Your task to perform on an android device: What's the weather going to be this weekend? Image 0: 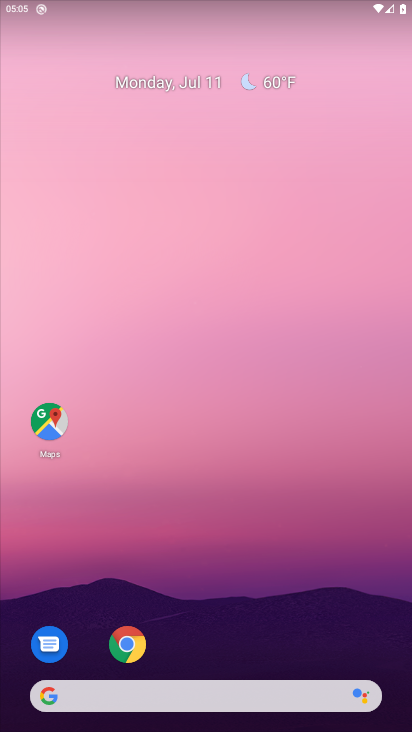
Step 0: drag from (260, 673) to (260, 421)
Your task to perform on an android device: What's the weather going to be this weekend? Image 1: 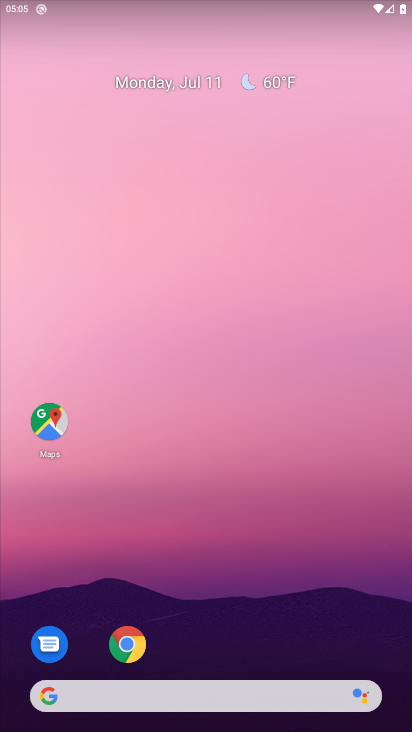
Step 1: drag from (220, 620) to (157, 143)
Your task to perform on an android device: What's the weather going to be this weekend? Image 2: 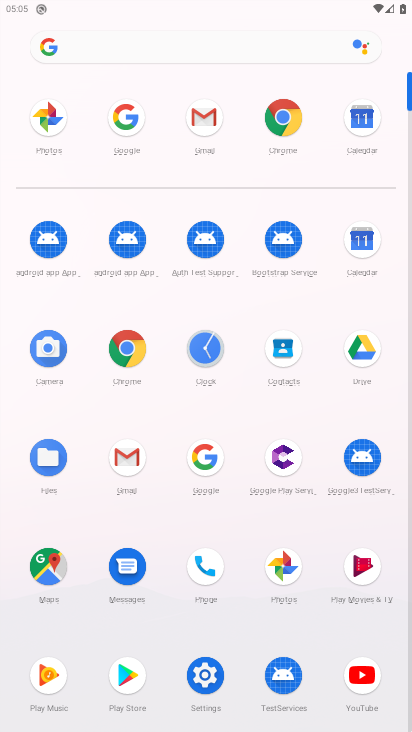
Step 2: click (197, 456)
Your task to perform on an android device: What's the weather going to be this weekend? Image 3: 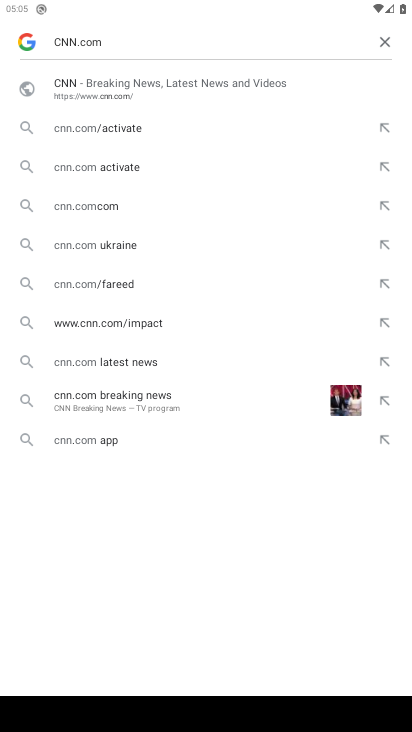
Step 3: click (118, 40)
Your task to perform on an android device: What's the weather going to be this weekend? Image 4: 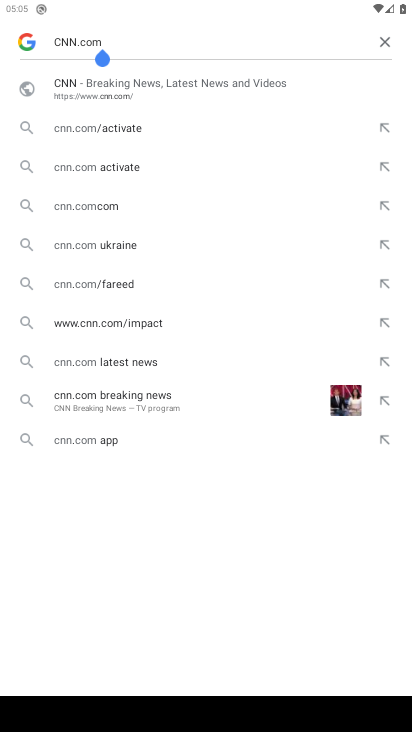
Step 4: click (382, 43)
Your task to perform on an android device: What's the weather going to be this weekend? Image 5: 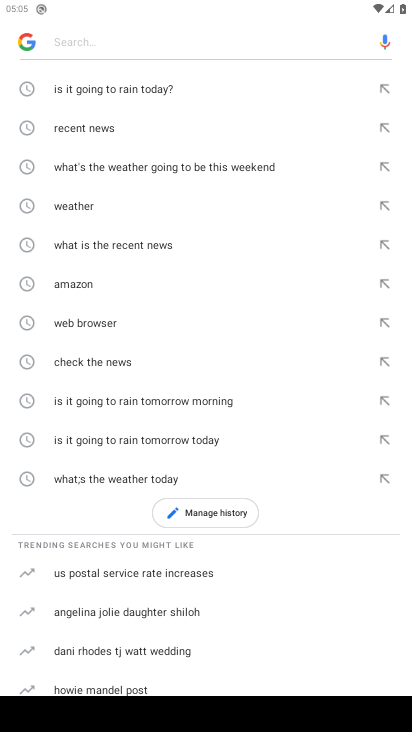
Step 5: click (190, 170)
Your task to perform on an android device: What's the weather going to be this weekend? Image 6: 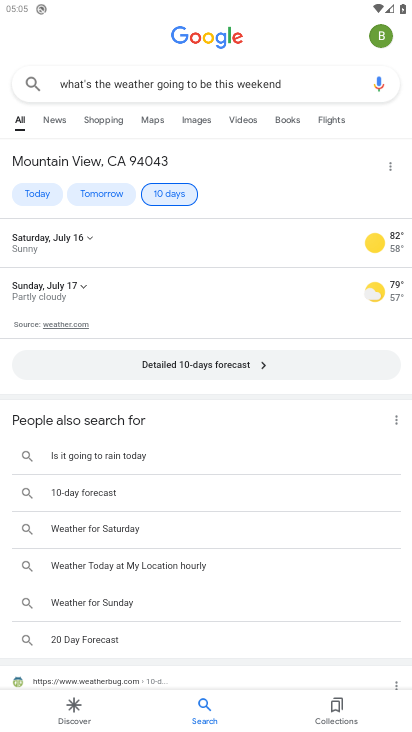
Step 6: click (185, 363)
Your task to perform on an android device: What's the weather going to be this weekend? Image 7: 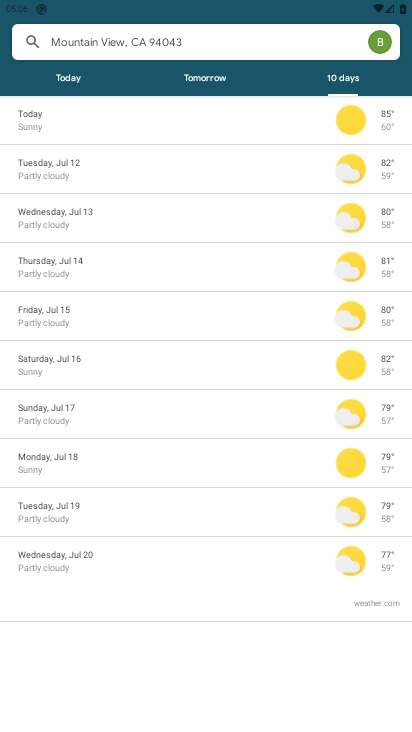
Step 7: task complete